Your task to perform on an android device: turn notification dots off Image 0: 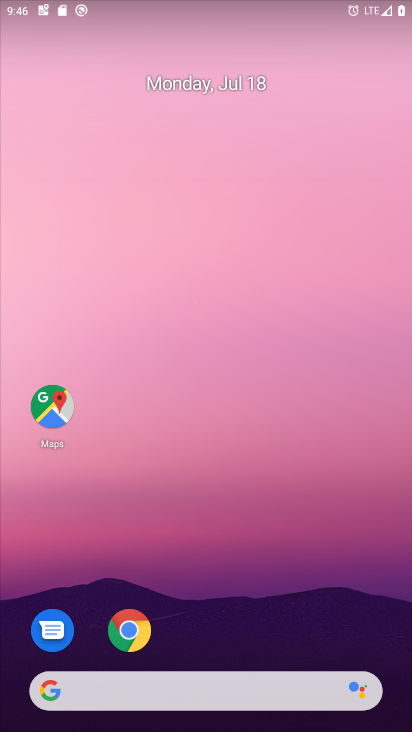
Step 0: drag from (263, 601) to (264, 255)
Your task to perform on an android device: turn notification dots off Image 1: 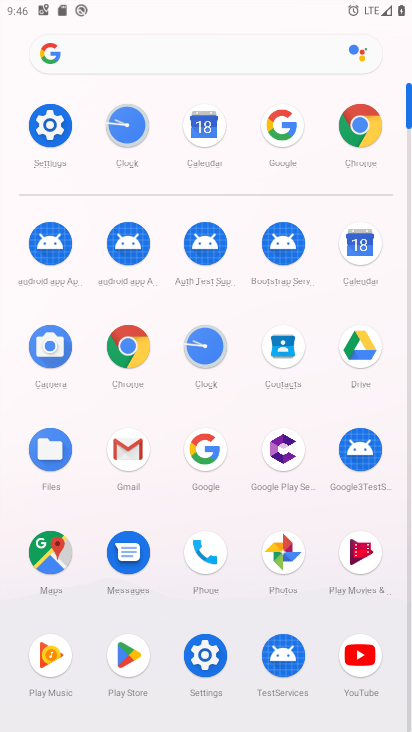
Step 1: click (52, 127)
Your task to perform on an android device: turn notification dots off Image 2: 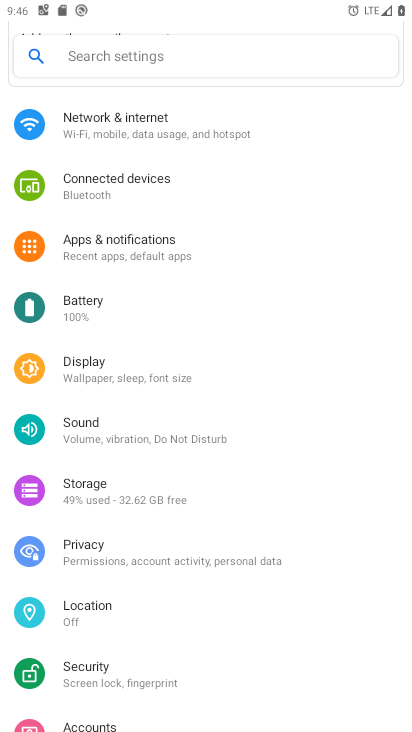
Step 2: click (188, 255)
Your task to perform on an android device: turn notification dots off Image 3: 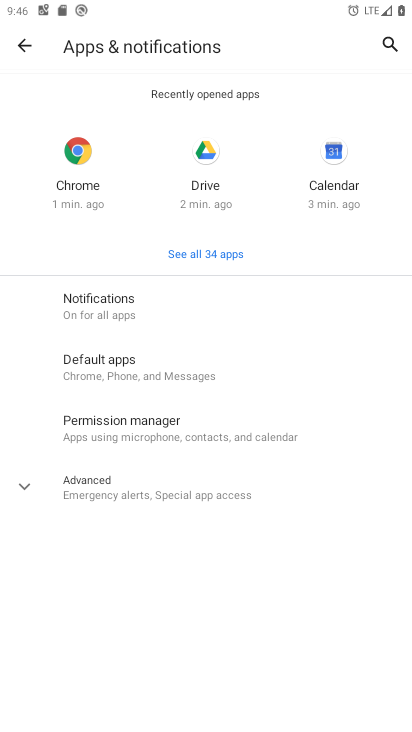
Step 3: click (145, 318)
Your task to perform on an android device: turn notification dots off Image 4: 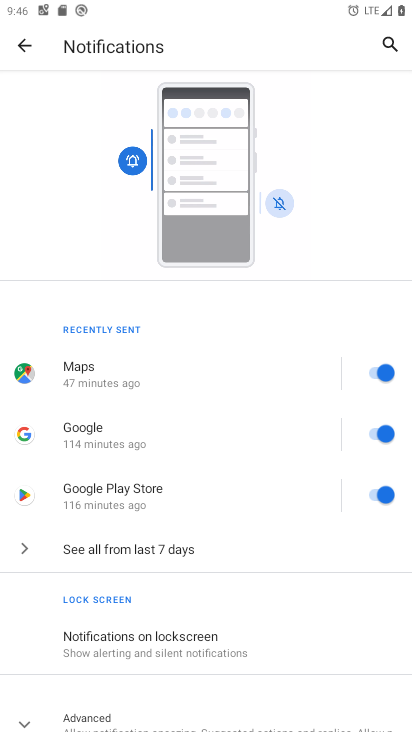
Step 4: click (172, 704)
Your task to perform on an android device: turn notification dots off Image 5: 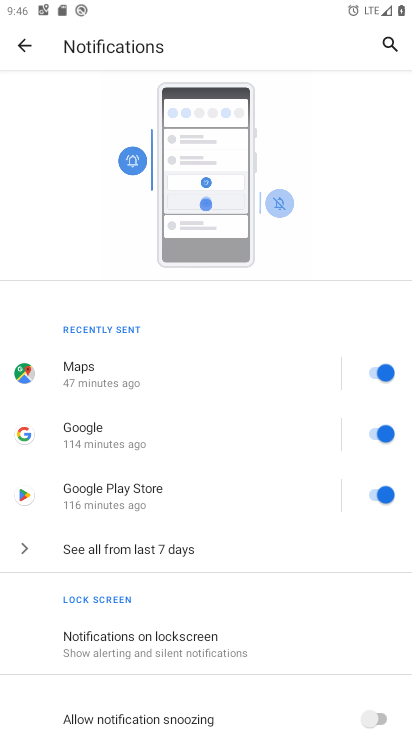
Step 5: drag from (217, 620) to (217, 305)
Your task to perform on an android device: turn notification dots off Image 6: 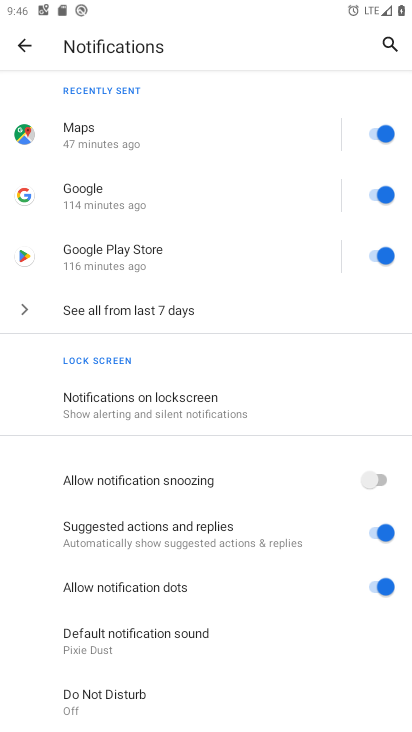
Step 6: click (375, 583)
Your task to perform on an android device: turn notification dots off Image 7: 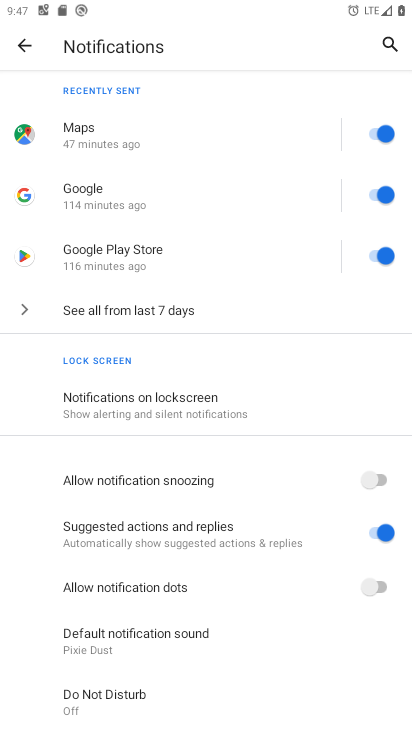
Step 7: task complete